Your task to perform on an android device: Open calendar and show me the fourth week of next month Image 0: 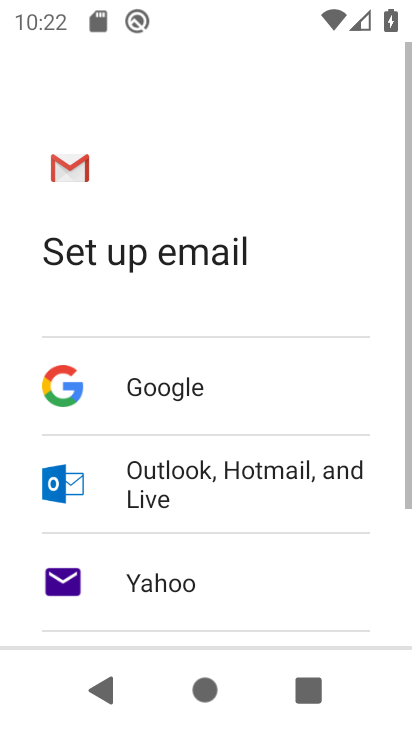
Step 0: press home button
Your task to perform on an android device: Open calendar and show me the fourth week of next month Image 1: 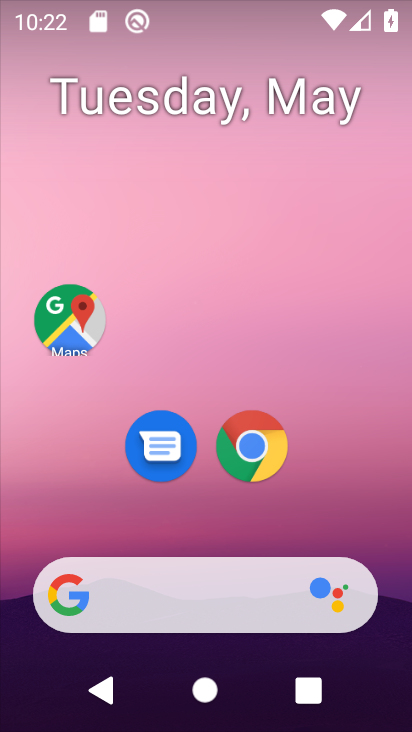
Step 1: drag from (219, 531) to (268, 206)
Your task to perform on an android device: Open calendar and show me the fourth week of next month Image 2: 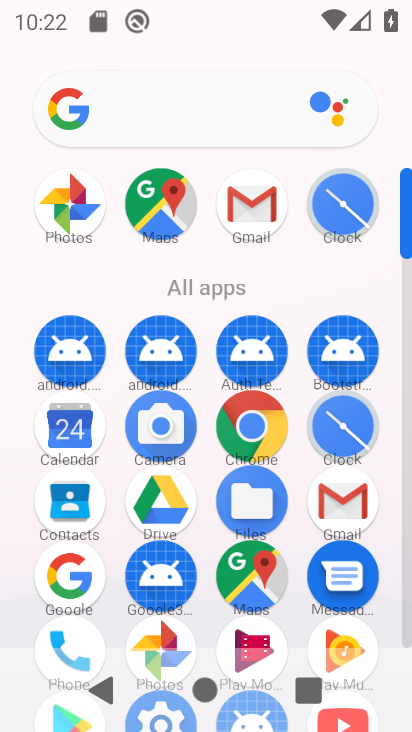
Step 2: click (72, 443)
Your task to perform on an android device: Open calendar and show me the fourth week of next month Image 3: 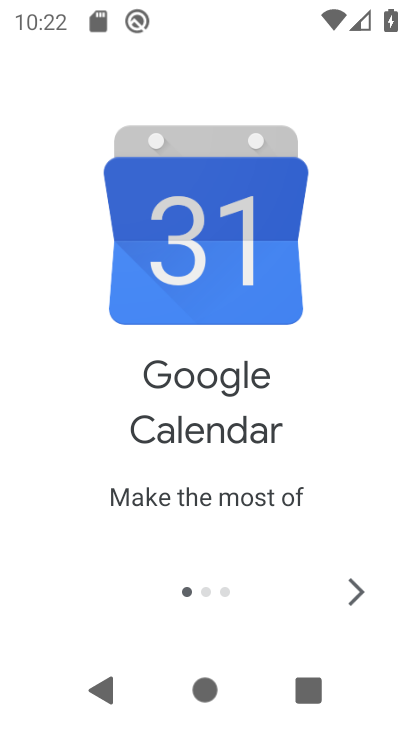
Step 3: click (355, 600)
Your task to perform on an android device: Open calendar and show me the fourth week of next month Image 4: 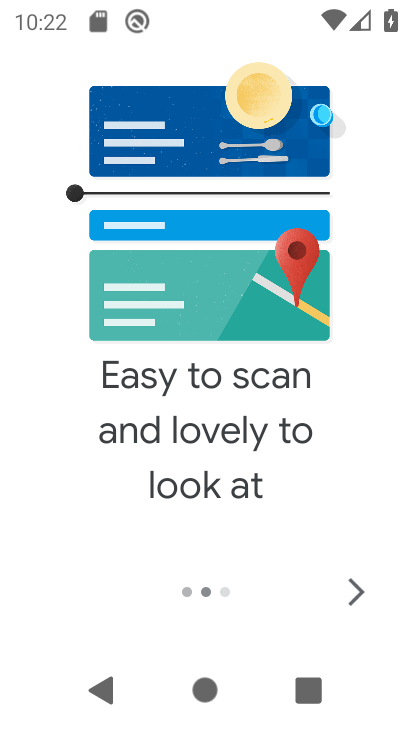
Step 4: click (355, 600)
Your task to perform on an android device: Open calendar and show me the fourth week of next month Image 5: 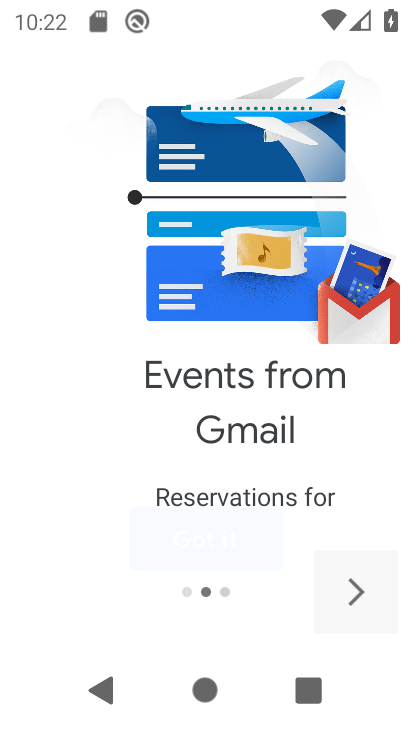
Step 5: click (355, 600)
Your task to perform on an android device: Open calendar and show me the fourth week of next month Image 6: 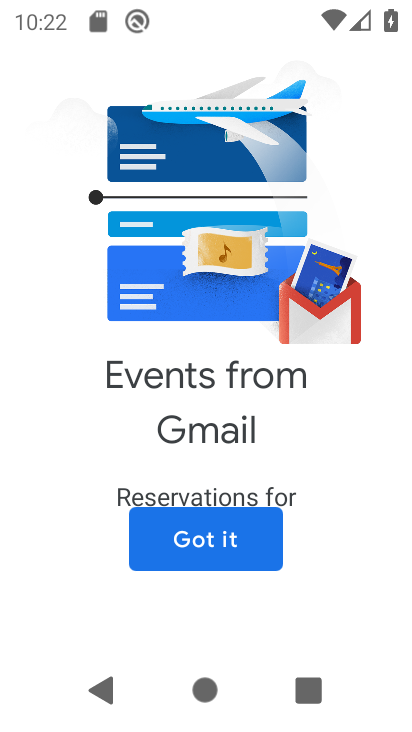
Step 6: click (247, 549)
Your task to perform on an android device: Open calendar and show me the fourth week of next month Image 7: 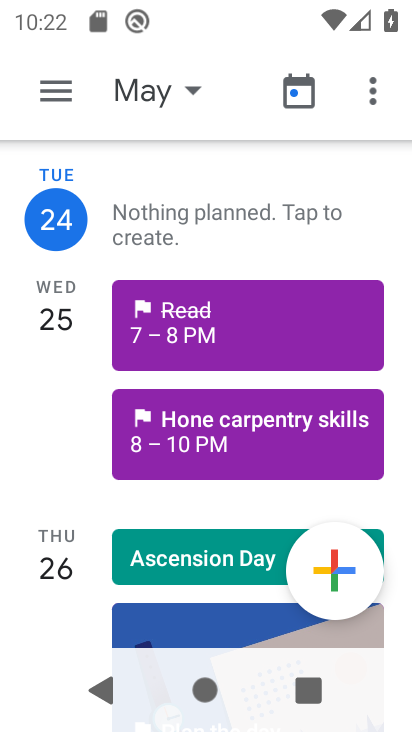
Step 7: click (154, 85)
Your task to perform on an android device: Open calendar and show me the fourth week of next month Image 8: 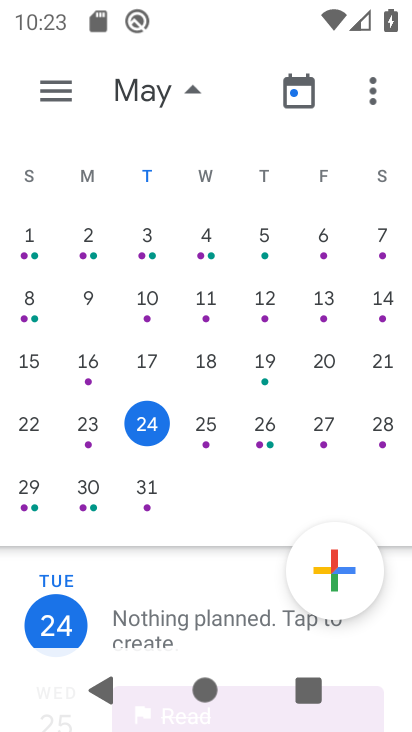
Step 8: drag from (270, 371) to (3, 345)
Your task to perform on an android device: Open calendar and show me the fourth week of next month Image 9: 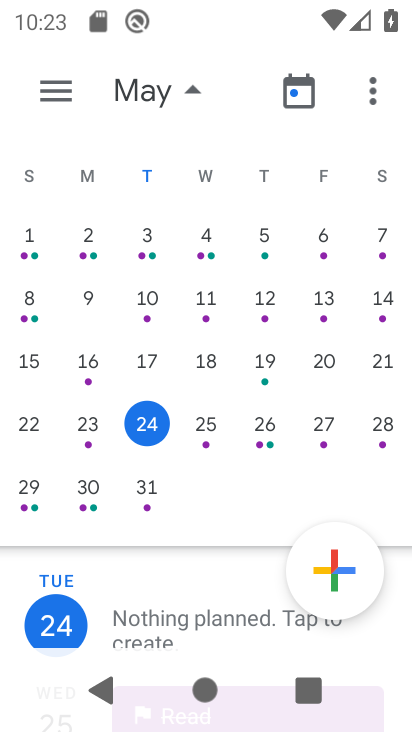
Step 9: drag from (302, 308) to (2, 371)
Your task to perform on an android device: Open calendar and show me the fourth week of next month Image 10: 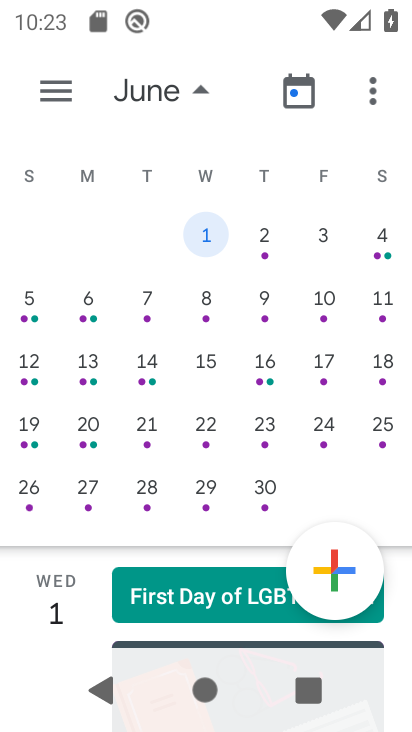
Step 10: click (37, 426)
Your task to perform on an android device: Open calendar and show me the fourth week of next month Image 11: 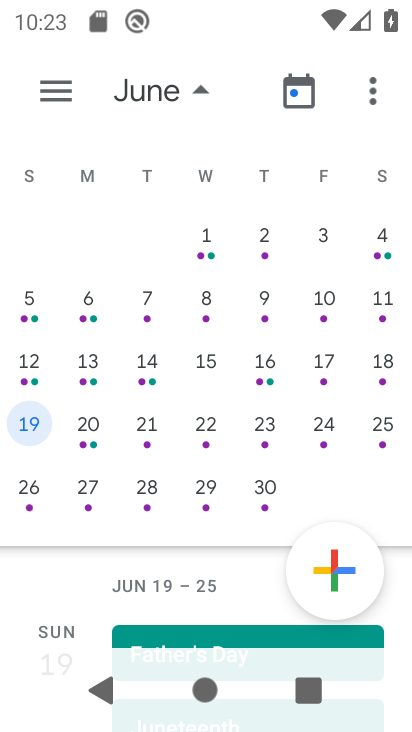
Step 11: click (194, 107)
Your task to perform on an android device: Open calendar and show me the fourth week of next month Image 12: 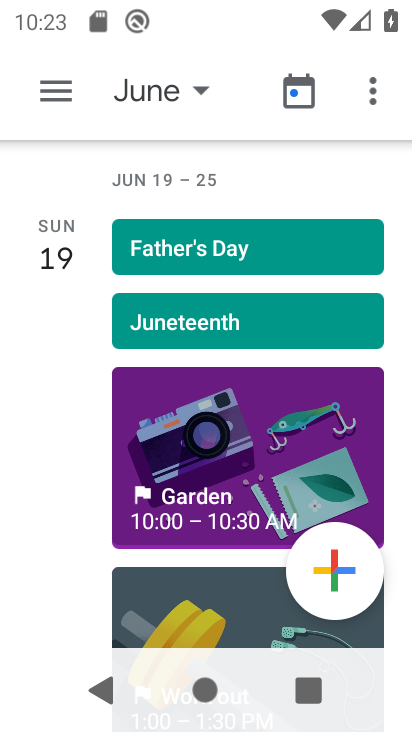
Step 12: task complete